Your task to perform on an android device: Open eBay Image 0: 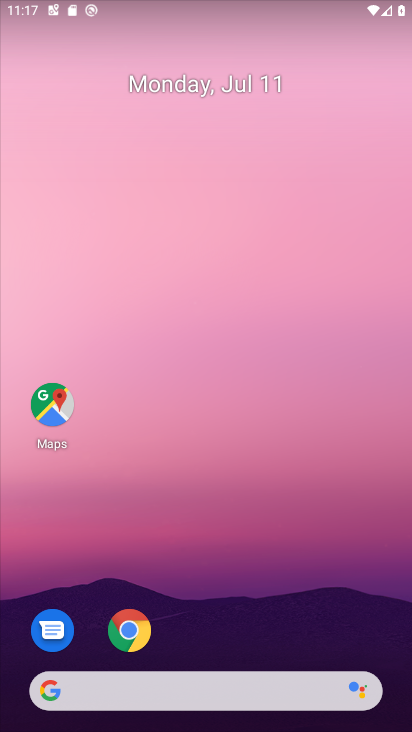
Step 0: click (132, 655)
Your task to perform on an android device: Open eBay Image 1: 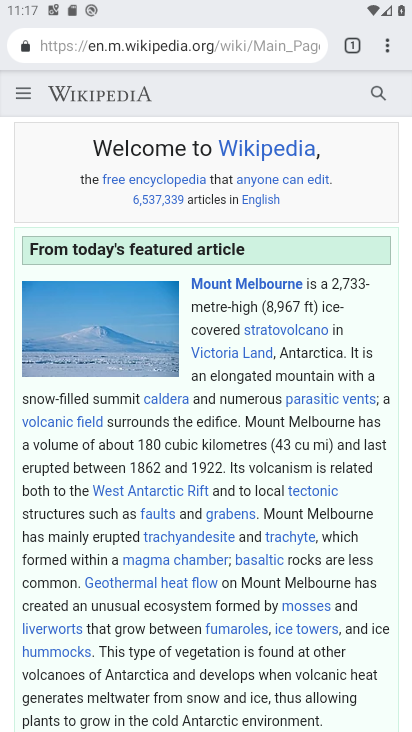
Step 1: click (199, 37)
Your task to perform on an android device: Open eBay Image 2: 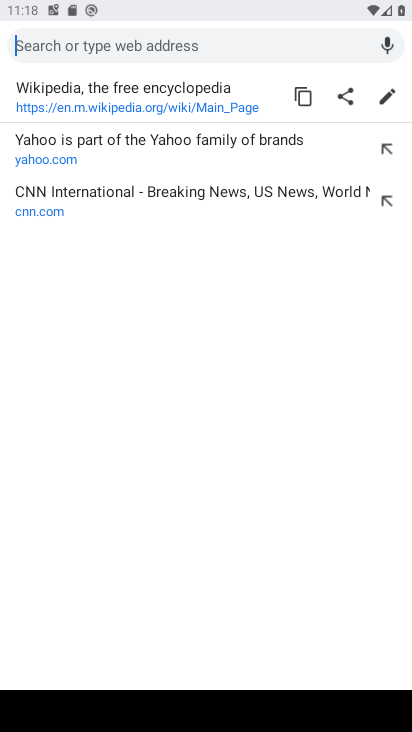
Step 2: type "eBay"
Your task to perform on an android device: Open eBay Image 3: 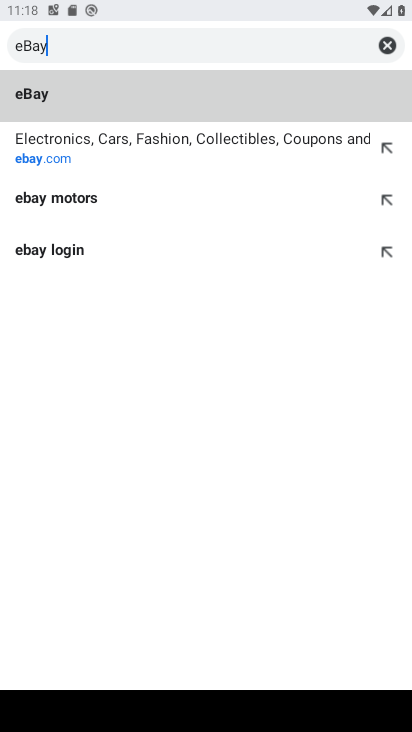
Step 3: click (65, 90)
Your task to perform on an android device: Open eBay Image 4: 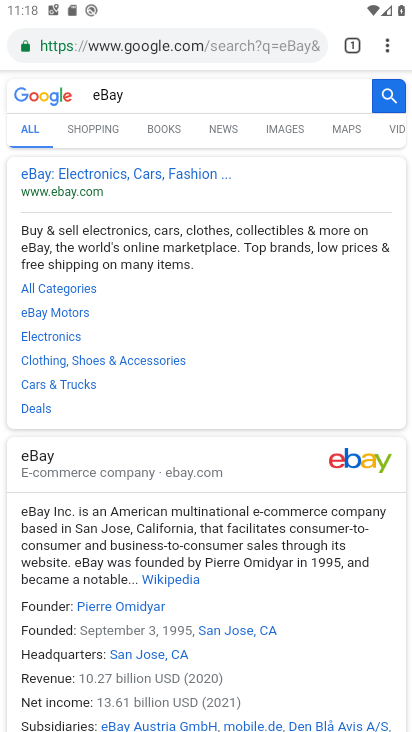
Step 4: task complete